Your task to perform on an android device: allow notifications from all sites in the chrome app Image 0: 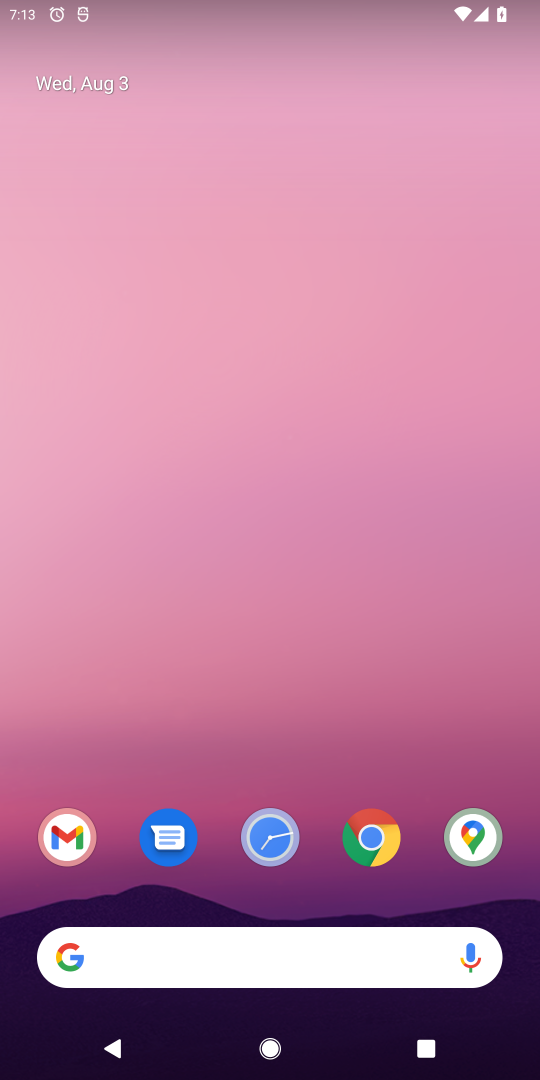
Step 0: press home button
Your task to perform on an android device: allow notifications from all sites in the chrome app Image 1: 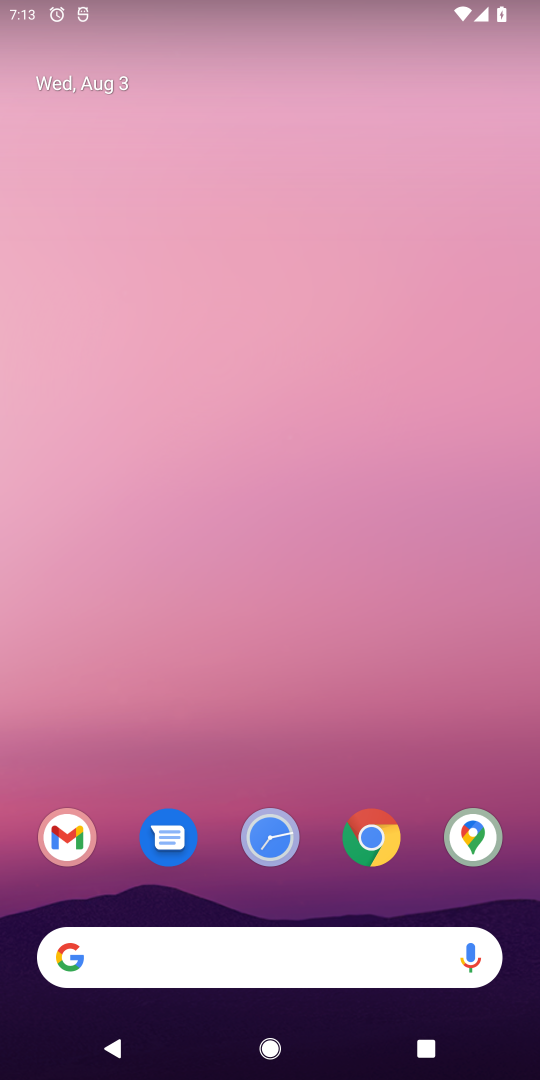
Step 1: click (378, 830)
Your task to perform on an android device: allow notifications from all sites in the chrome app Image 2: 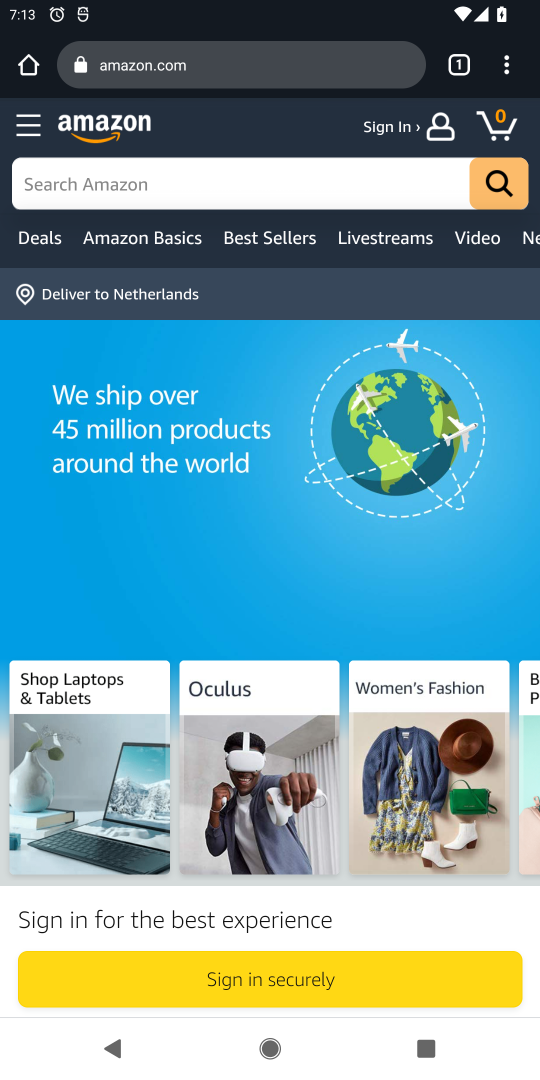
Step 2: drag from (505, 71) to (384, 837)
Your task to perform on an android device: allow notifications from all sites in the chrome app Image 3: 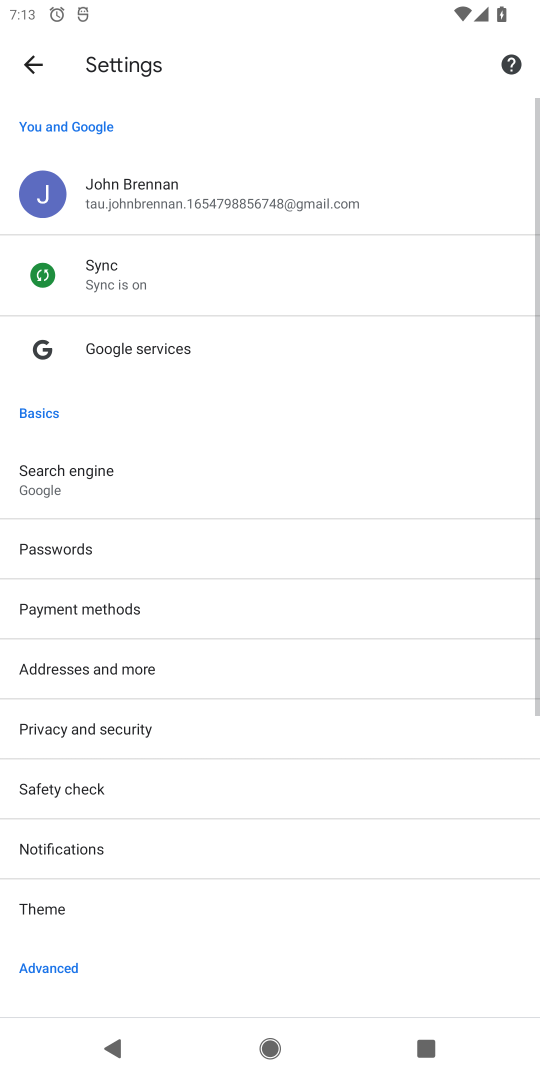
Step 3: drag from (168, 965) to (180, 419)
Your task to perform on an android device: allow notifications from all sites in the chrome app Image 4: 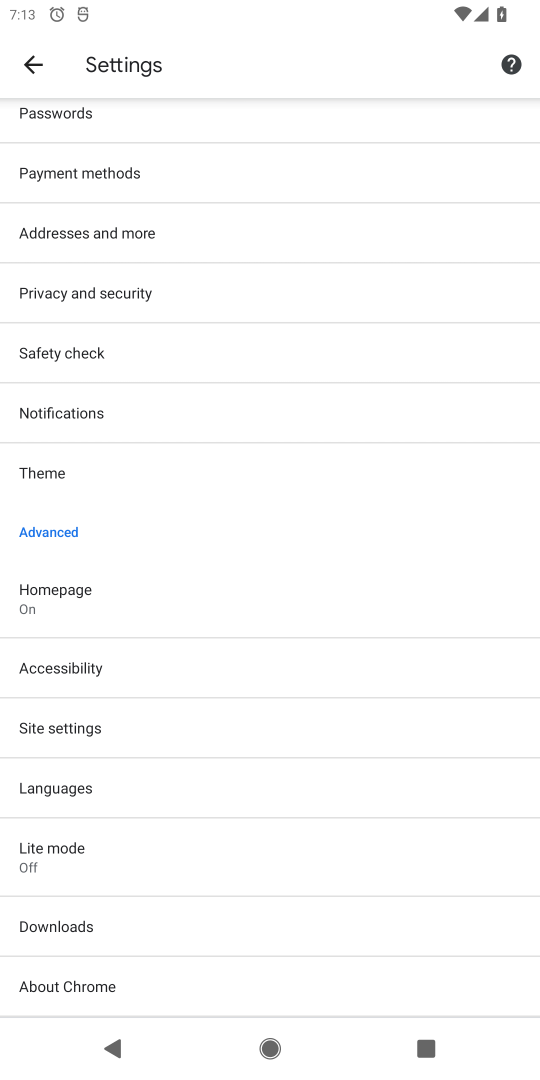
Step 4: click (59, 727)
Your task to perform on an android device: allow notifications from all sites in the chrome app Image 5: 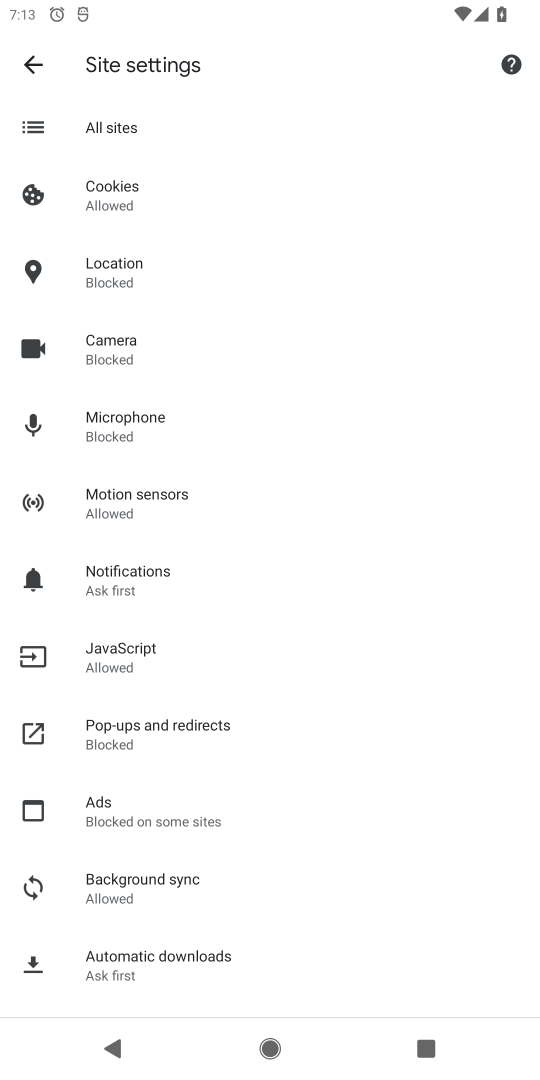
Step 5: click (117, 576)
Your task to perform on an android device: allow notifications from all sites in the chrome app Image 6: 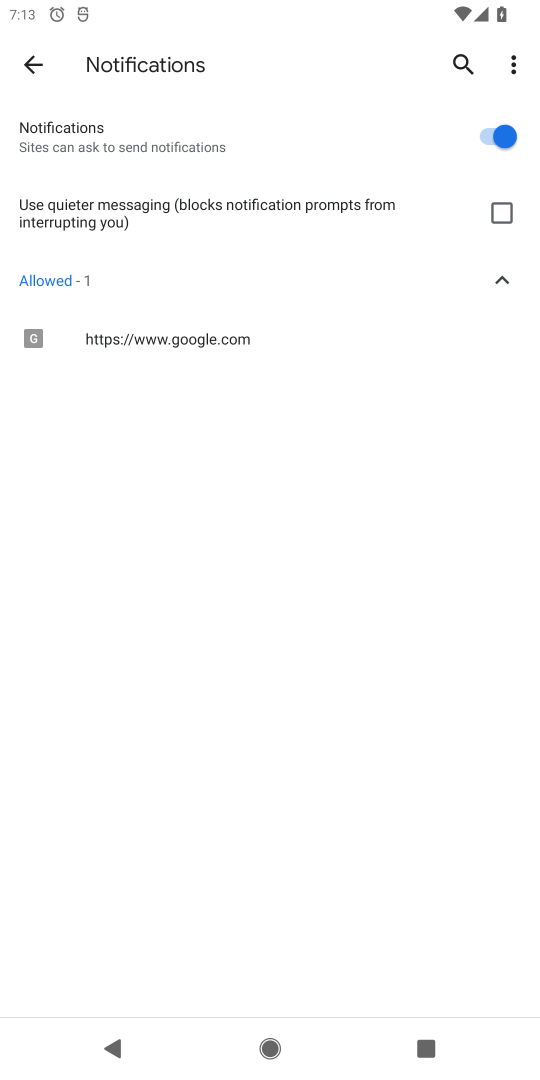
Step 6: task complete